Your task to perform on an android device: Open privacy settings Image 0: 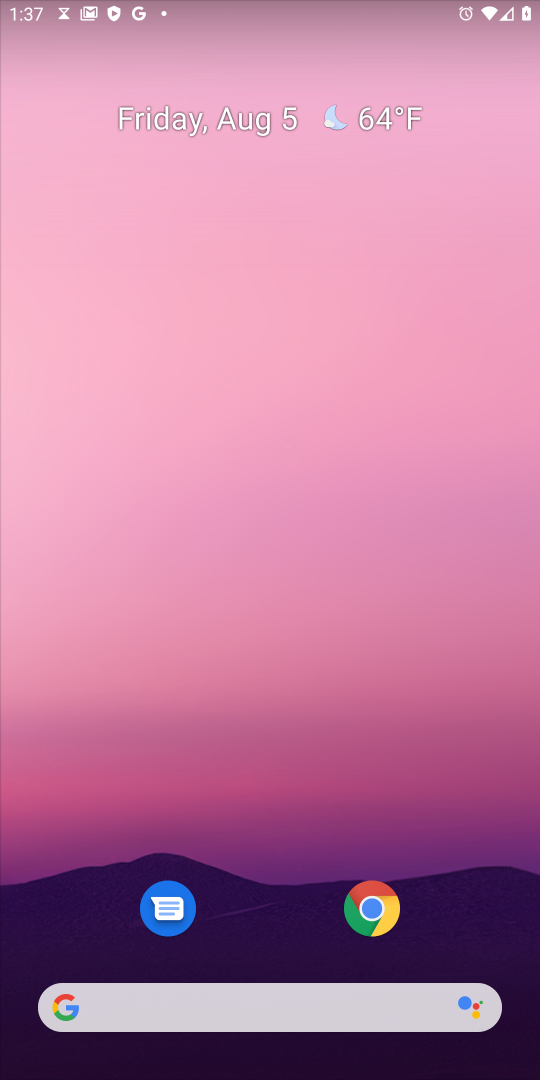
Step 0: press home button
Your task to perform on an android device: Open privacy settings Image 1: 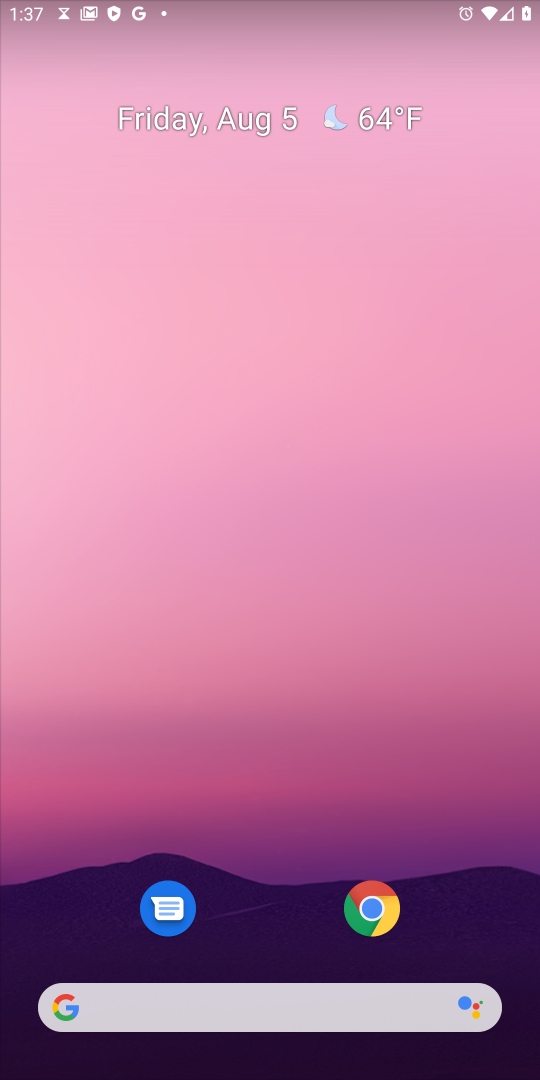
Step 1: drag from (253, 927) to (247, 125)
Your task to perform on an android device: Open privacy settings Image 2: 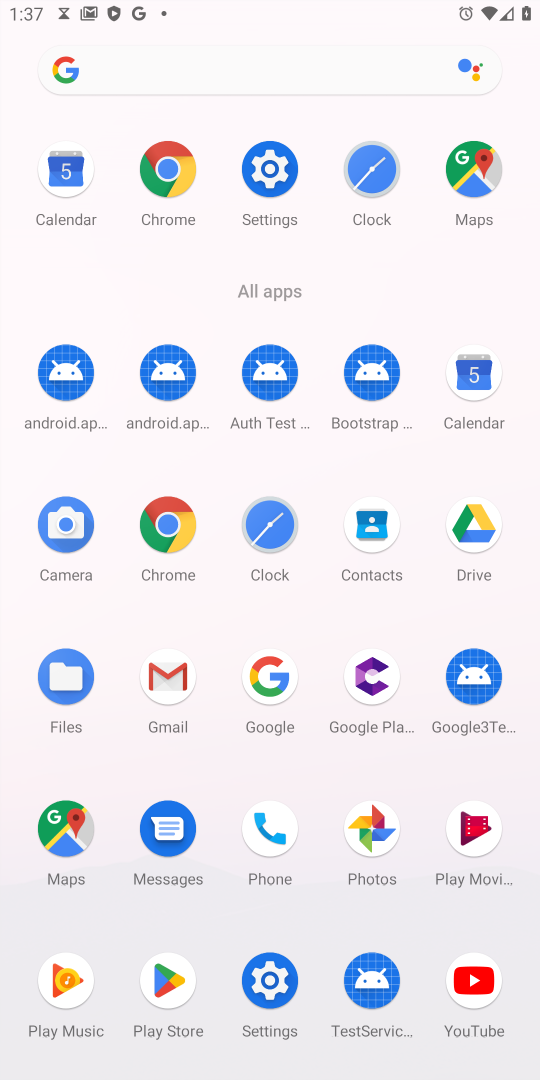
Step 2: click (261, 971)
Your task to perform on an android device: Open privacy settings Image 3: 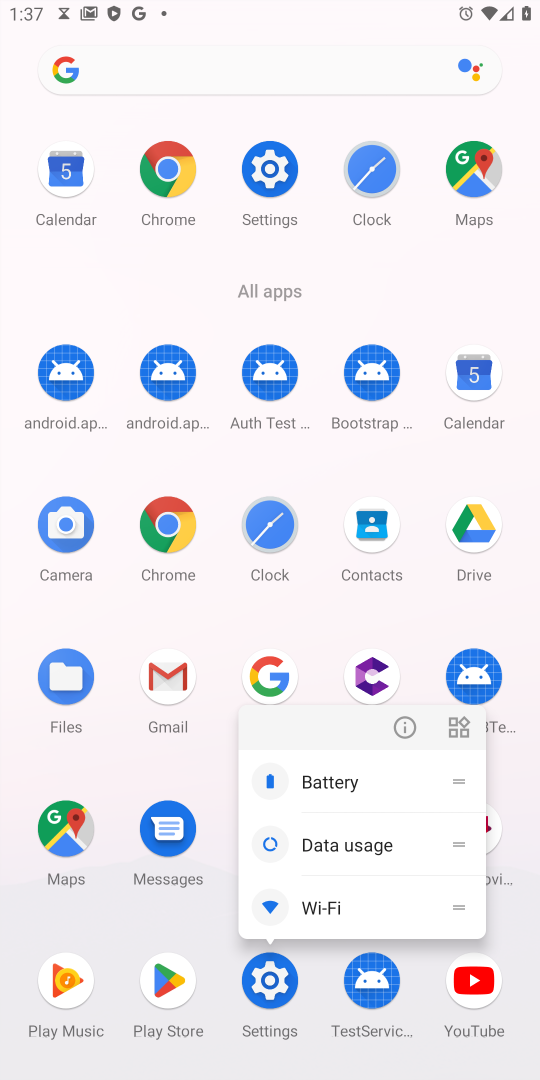
Step 3: click (273, 980)
Your task to perform on an android device: Open privacy settings Image 4: 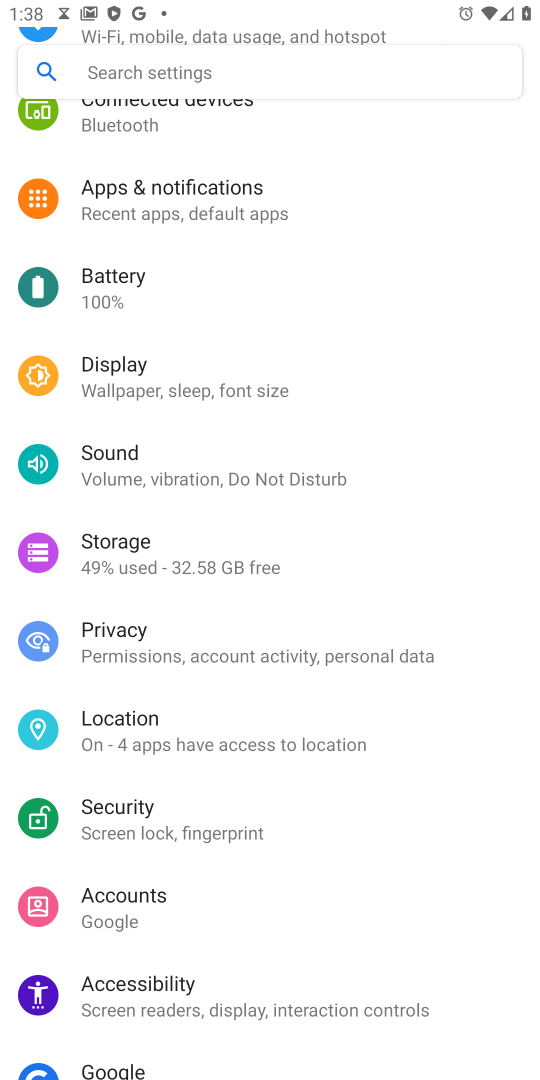
Step 4: click (140, 637)
Your task to perform on an android device: Open privacy settings Image 5: 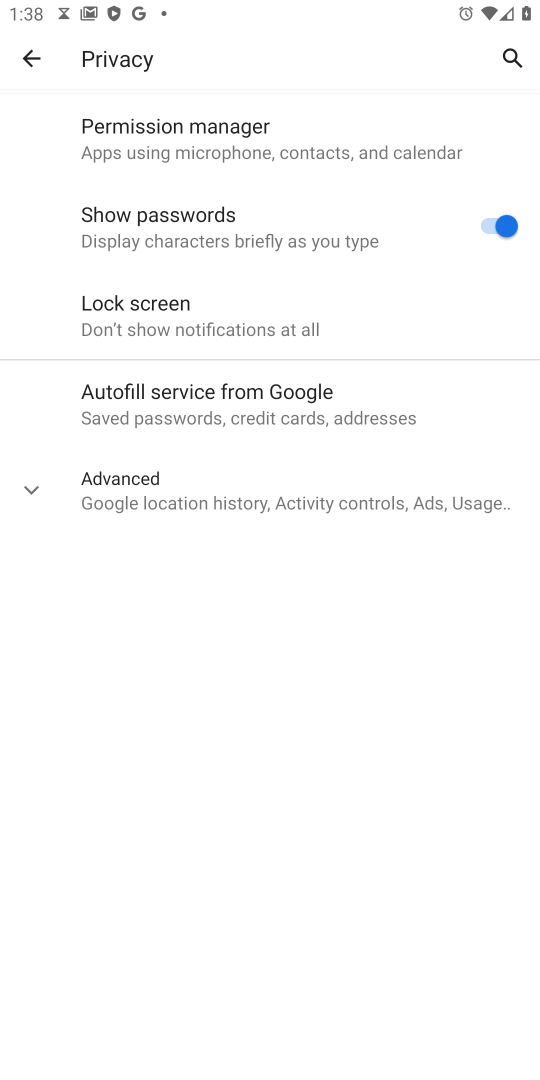
Step 5: task complete